Your task to perform on an android device: turn on javascript in the chrome app Image 0: 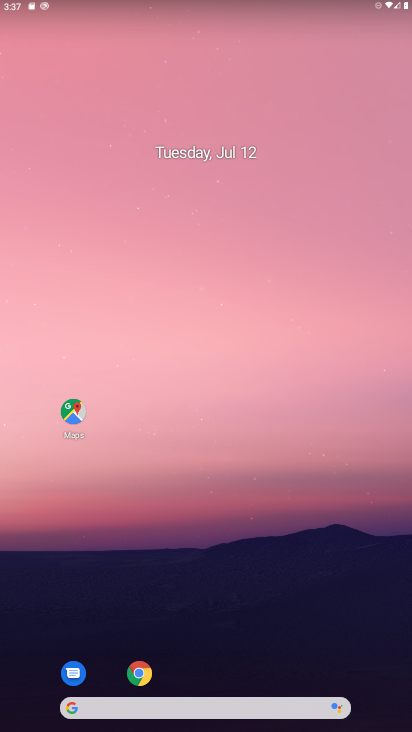
Step 0: click (140, 674)
Your task to perform on an android device: turn on javascript in the chrome app Image 1: 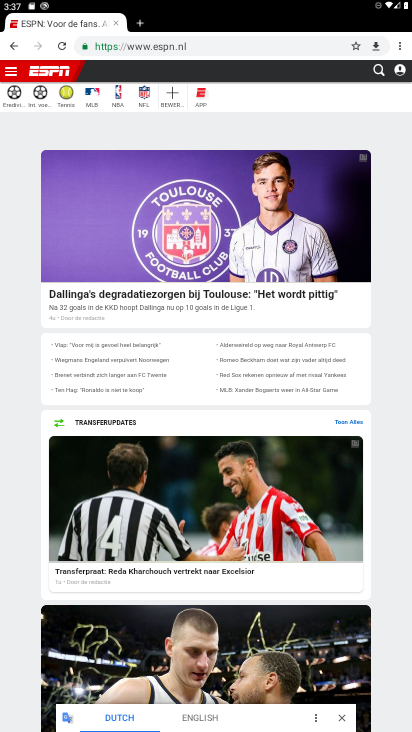
Step 1: click (400, 46)
Your task to perform on an android device: turn on javascript in the chrome app Image 2: 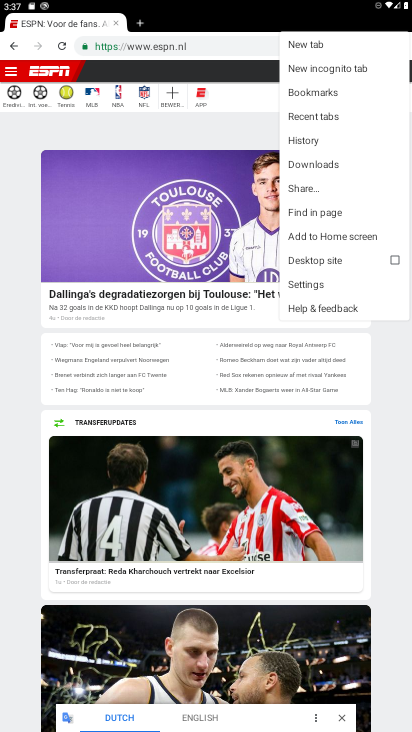
Step 2: click (310, 284)
Your task to perform on an android device: turn on javascript in the chrome app Image 3: 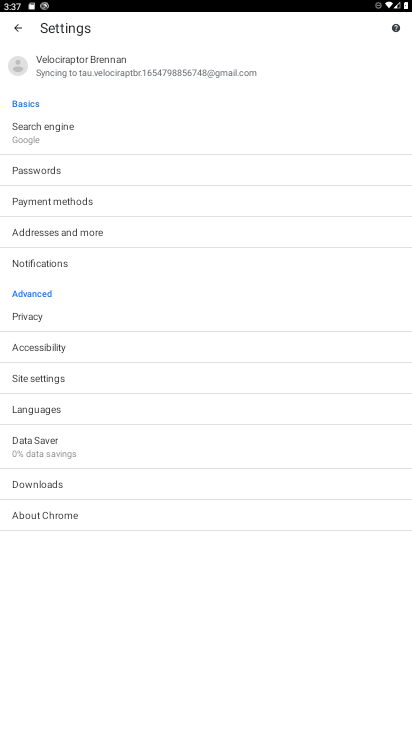
Step 3: click (47, 378)
Your task to perform on an android device: turn on javascript in the chrome app Image 4: 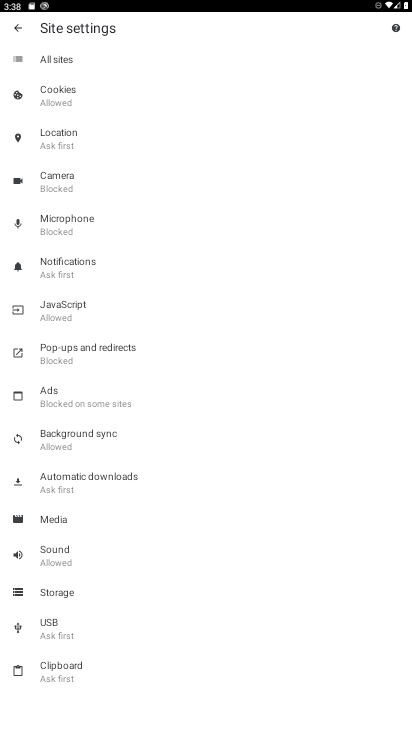
Step 4: click (60, 313)
Your task to perform on an android device: turn on javascript in the chrome app Image 5: 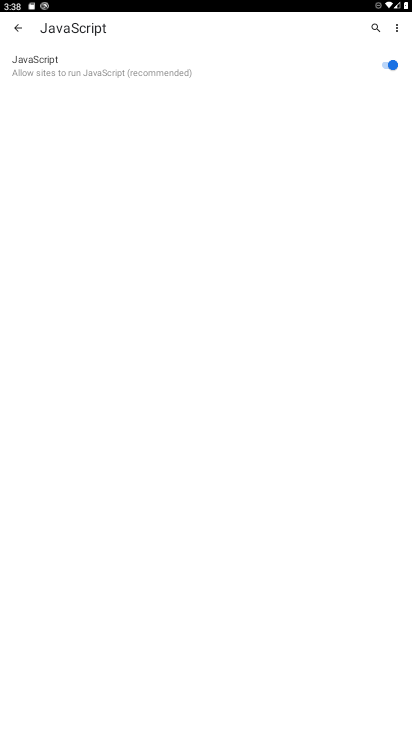
Step 5: task complete